Your task to perform on an android device: Go to wifi settings Image 0: 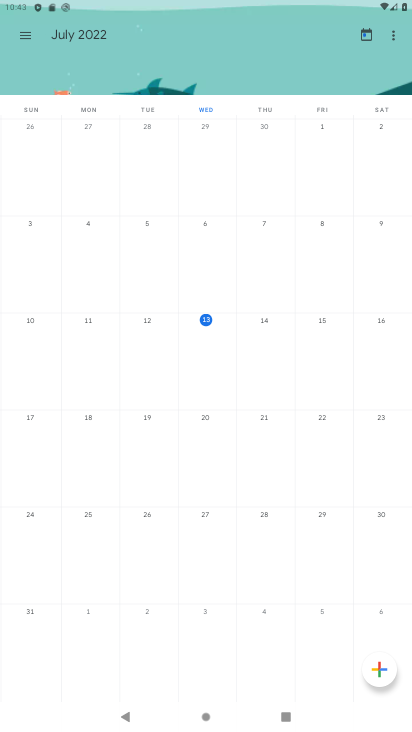
Step 0: press home button
Your task to perform on an android device: Go to wifi settings Image 1: 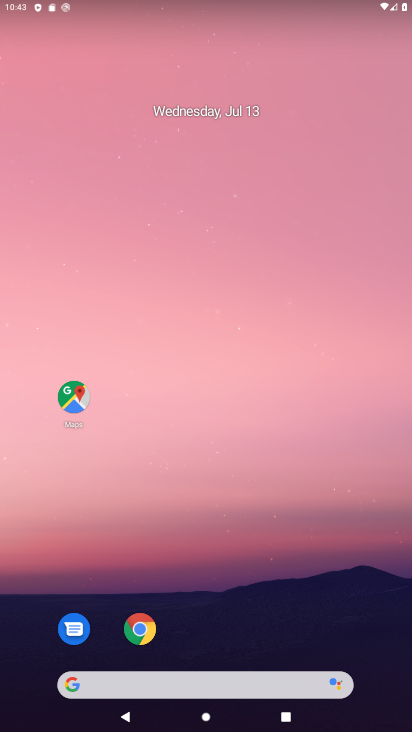
Step 1: drag from (231, 724) to (227, 101)
Your task to perform on an android device: Go to wifi settings Image 2: 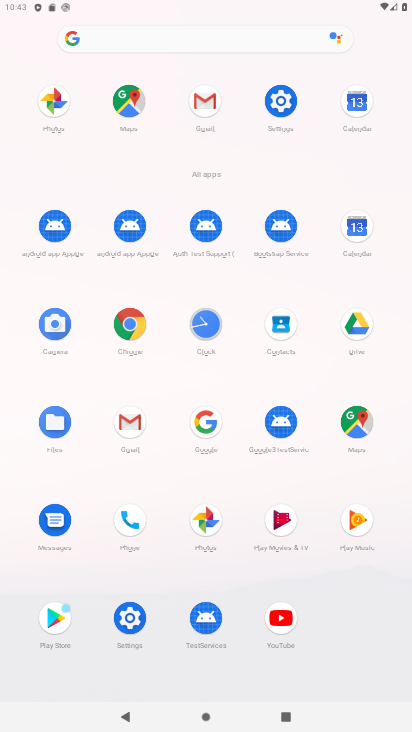
Step 2: click (287, 96)
Your task to perform on an android device: Go to wifi settings Image 3: 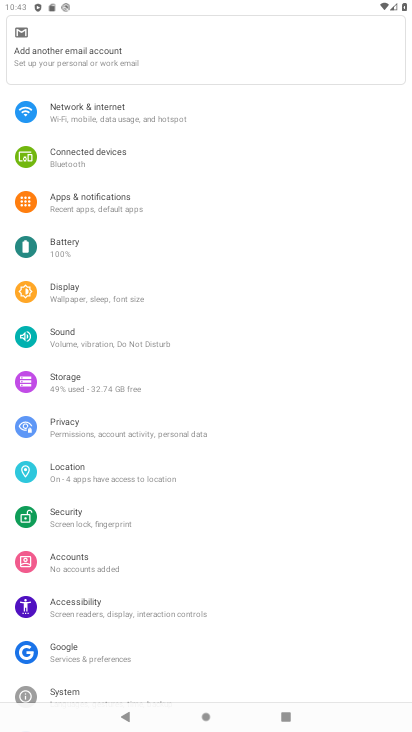
Step 3: click (87, 119)
Your task to perform on an android device: Go to wifi settings Image 4: 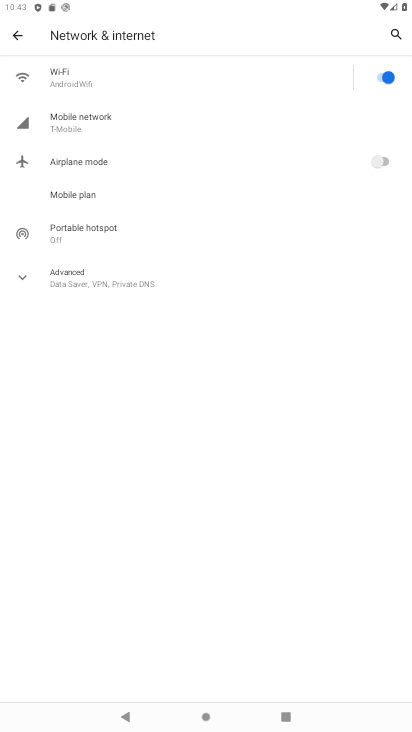
Step 4: click (67, 74)
Your task to perform on an android device: Go to wifi settings Image 5: 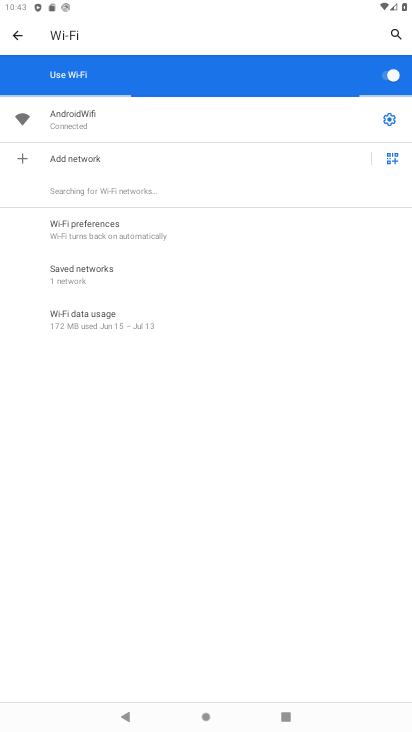
Step 5: task complete